Your task to perform on an android device: Search for the best Mexican restaurants Image 0: 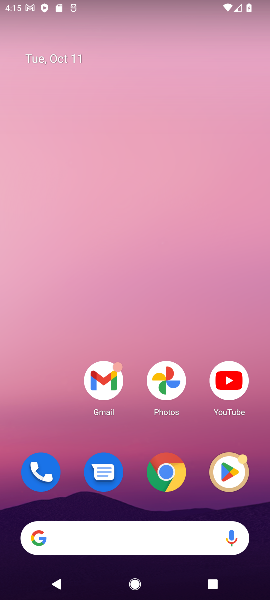
Step 0: click (138, 527)
Your task to perform on an android device: Search for the best Mexican restaurants Image 1: 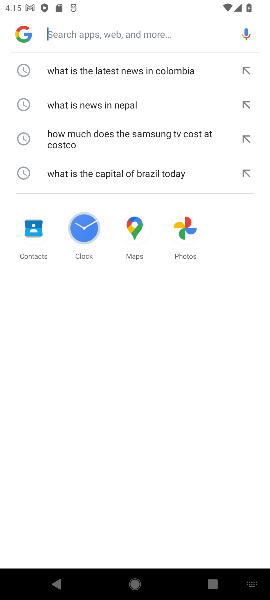
Step 1: type "the best Mexican restaurants"
Your task to perform on an android device: Search for the best Mexican restaurants Image 2: 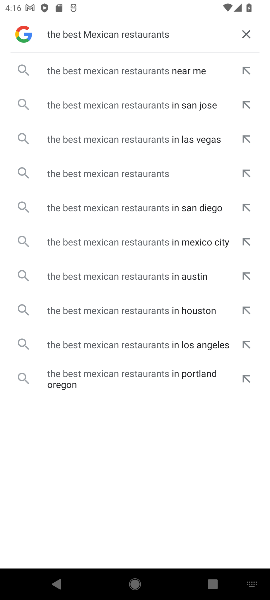
Step 2: click (148, 70)
Your task to perform on an android device: Search for the best Mexican restaurants Image 3: 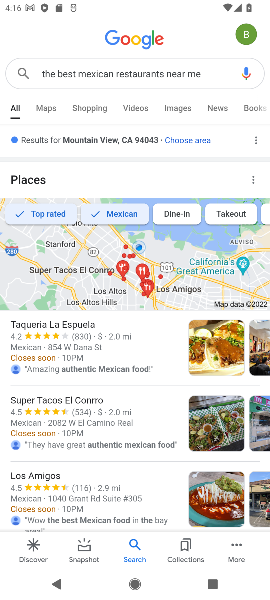
Step 3: task complete